Your task to perform on an android device: allow cookies in the chrome app Image 0: 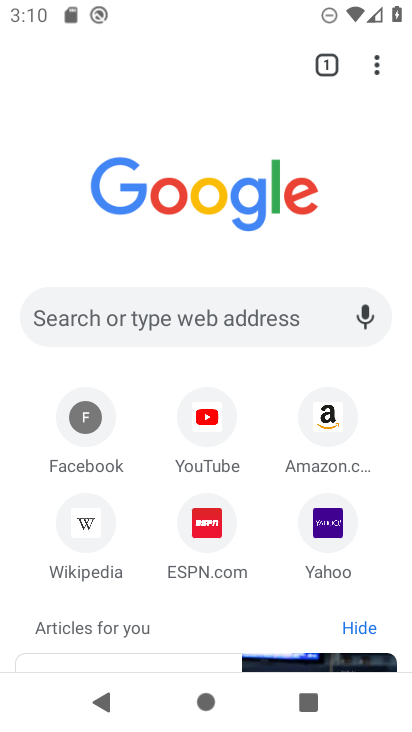
Step 0: click (382, 70)
Your task to perform on an android device: allow cookies in the chrome app Image 1: 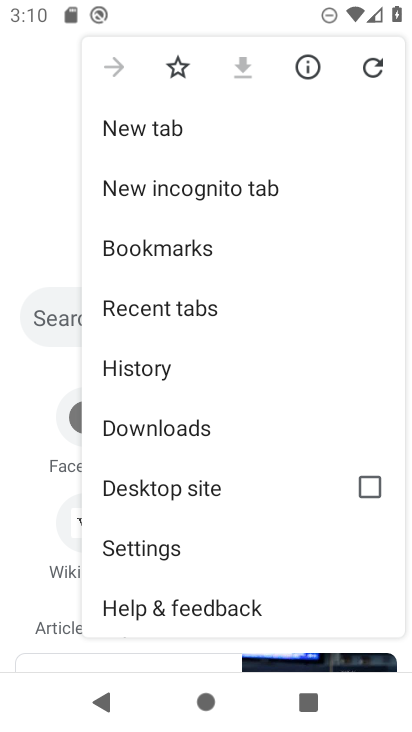
Step 1: click (197, 551)
Your task to perform on an android device: allow cookies in the chrome app Image 2: 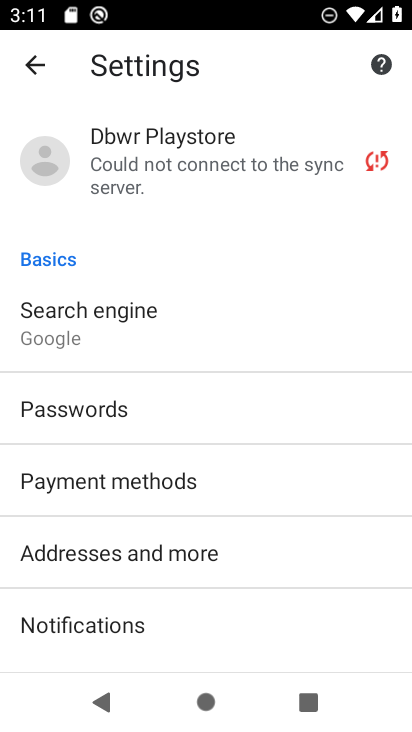
Step 2: drag from (233, 596) to (270, 166)
Your task to perform on an android device: allow cookies in the chrome app Image 3: 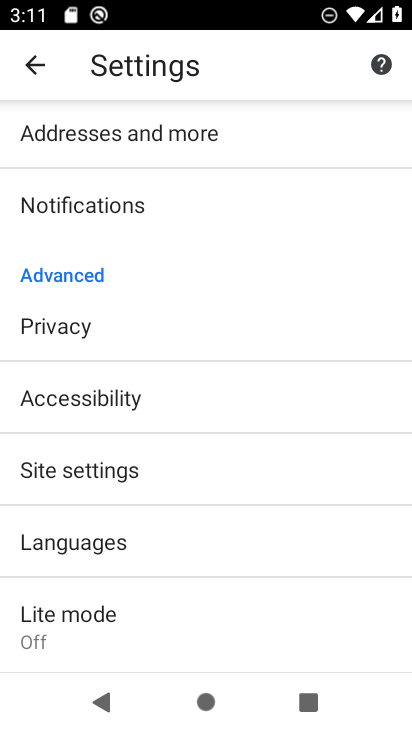
Step 3: click (147, 470)
Your task to perform on an android device: allow cookies in the chrome app Image 4: 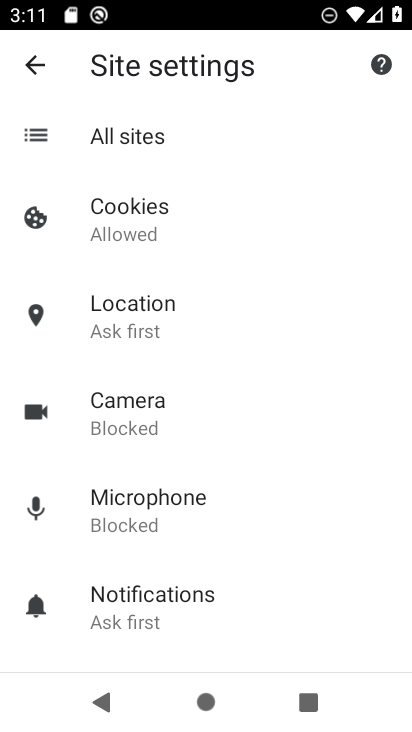
Step 4: click (162, 213)
Your task to perform on an android device: allow cookies in the chrome app Image 5: 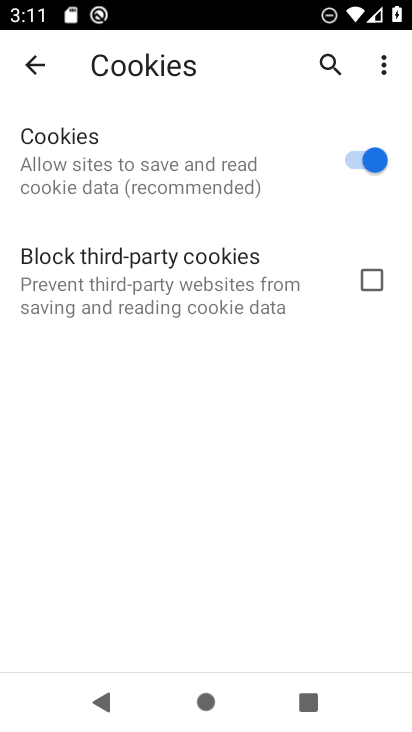
Step 5: task complete